Your task to perform on an android device: open sync settings in chrome Image 0: 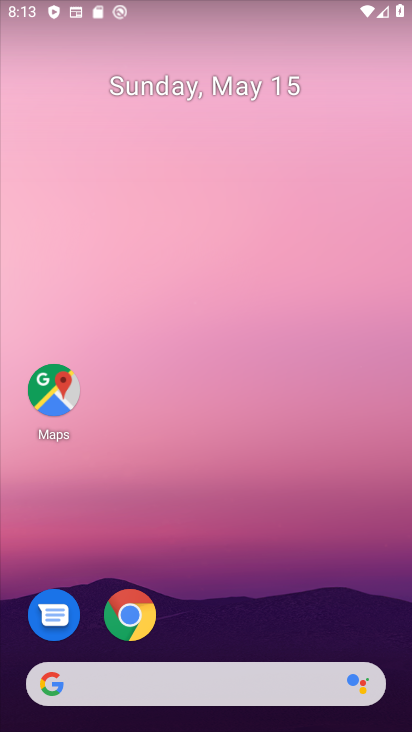
Step 0: click (126, 609)
Your task to perform on an android device: open sync settings in chrome Image 1: 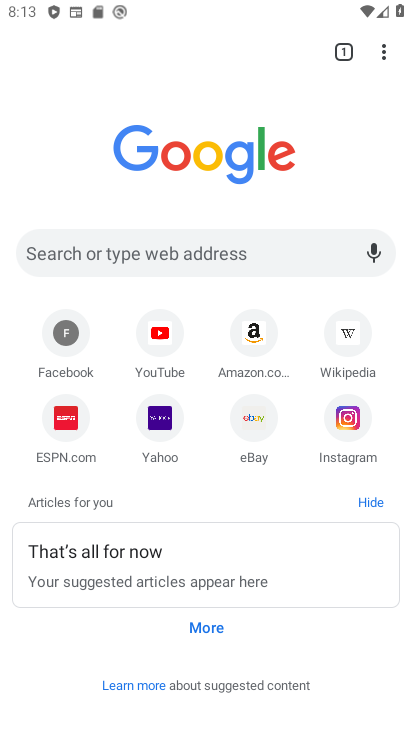
Step 1: click (387, 48)
Your task to perform on an android device: open sync settings in chrome Image 2: 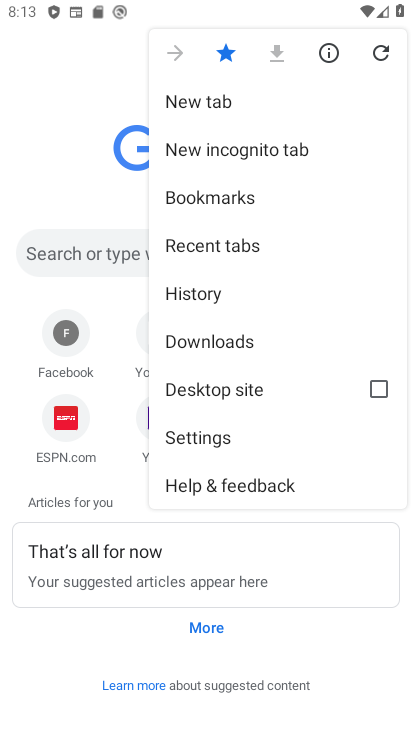
Step 2: click (188, 433)
Your task to perform on an android device: open sync settings in chrome Image 3: 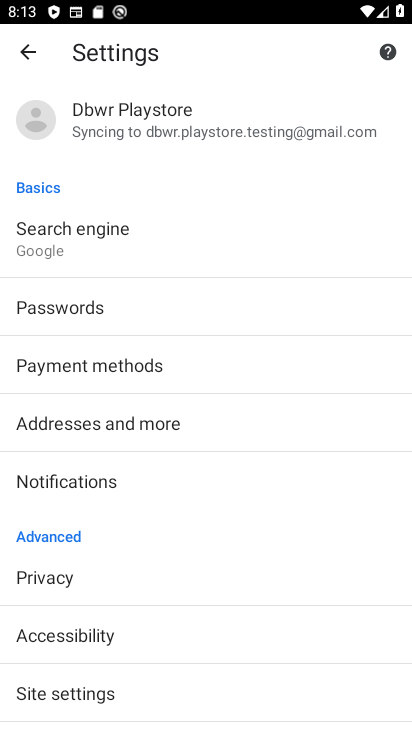
Step 3: click (102, 136)
Your task to perform on an android device: open sync settings in chrome Image 4: 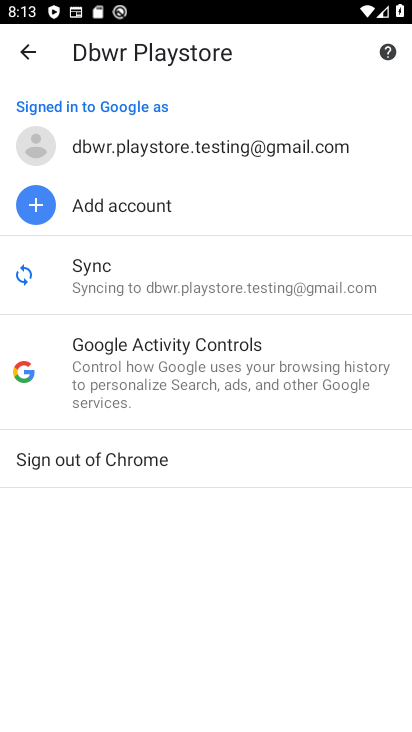
Step 4: click (110, 465)
Your task to perform on an android device: open sync settings in chrome Image 5: 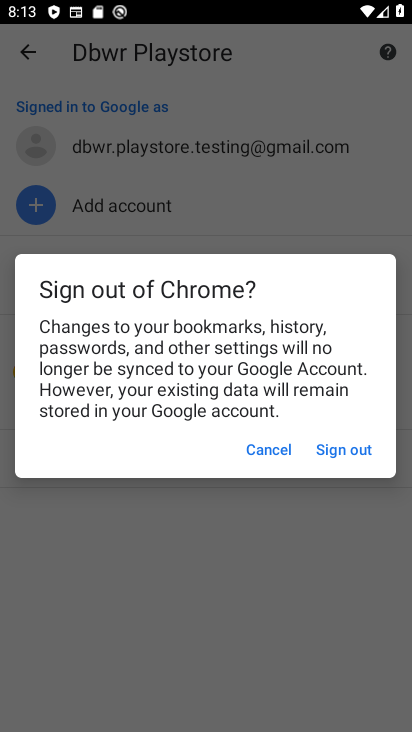
Step 5: click (282, 443)
Your task to perform on an android device: open sync settings in chrome Image 6: 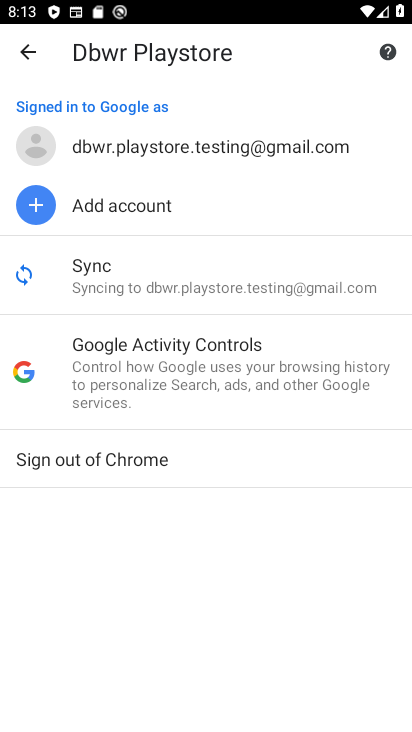
Step 6: click (112, 278)
Your task to perform on an android device: open sync settings in chrome Image 7: 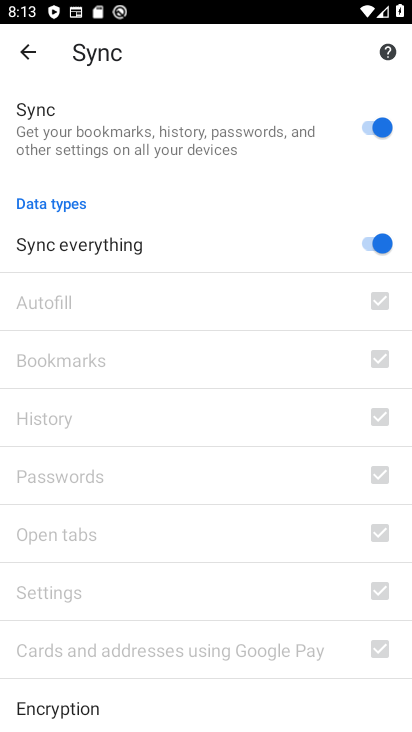
Step 7: task complete